Your task to perform on an android device: all mails in gmail Image 0: 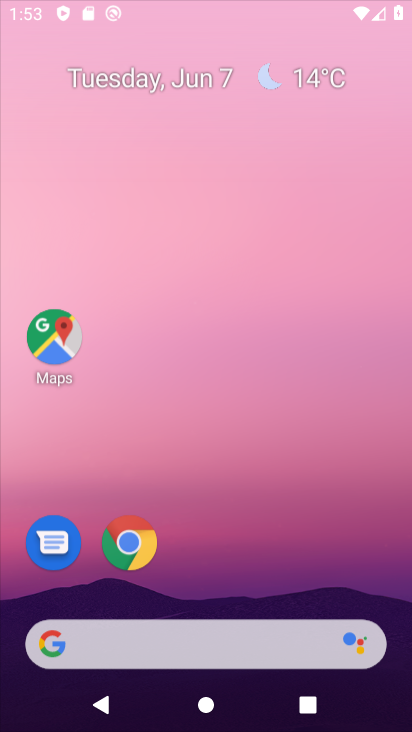
Step 0: click (194, 101)
Your task to perform on an android device: all mails in gmail Image 1: 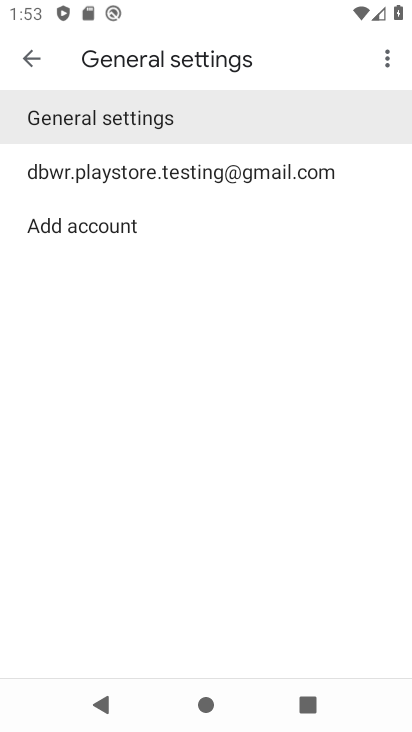
Step 1: click (171, 83)
Your task to perform on an android device: all mails in gmail Image 2: 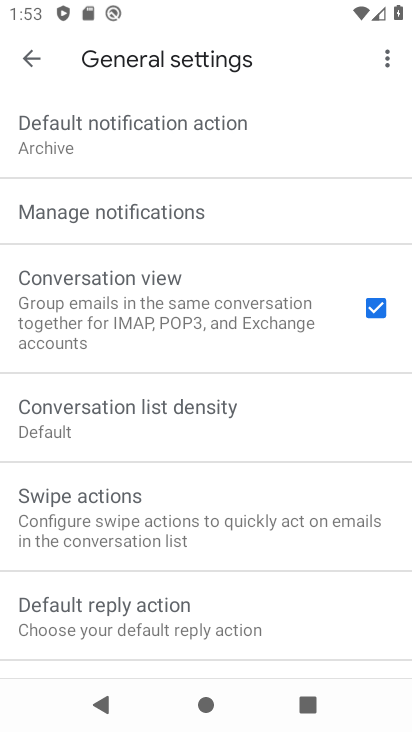
Step 2: press home button
Your task to perform on an android device: all mails in gmail Image 3: 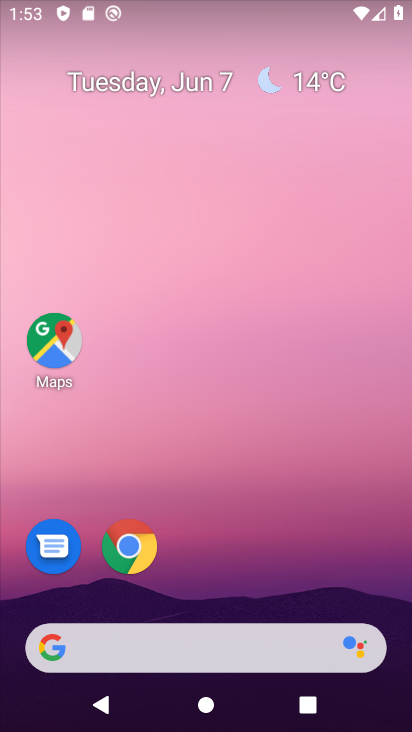
Step 3: drag from (203, 599) to (195, 139)
Your task to perform on an android device: all mails in gmail Image 4: 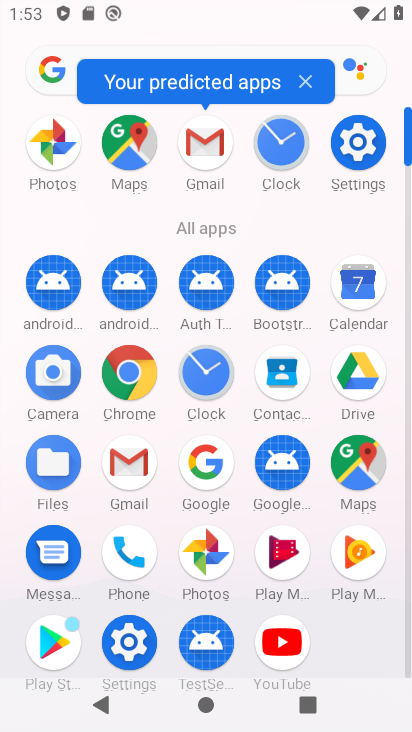
Step 4: click (181, 138)
Your task to perform on an android device: all mails in gmail Image 5: 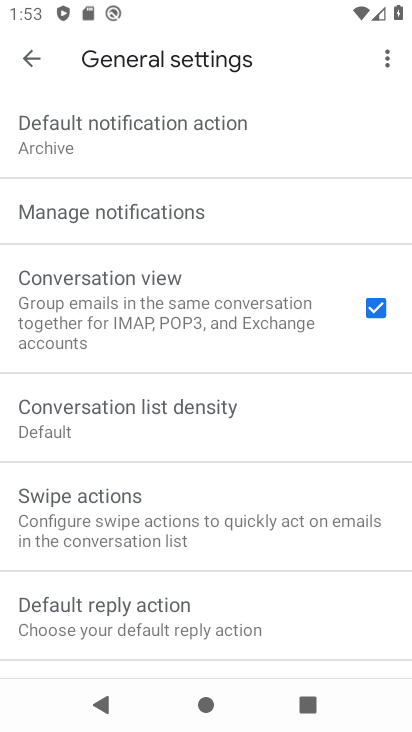
Step 5: click (28, 54)
Your task to perform on an android device: all mails in gmail Image 6: 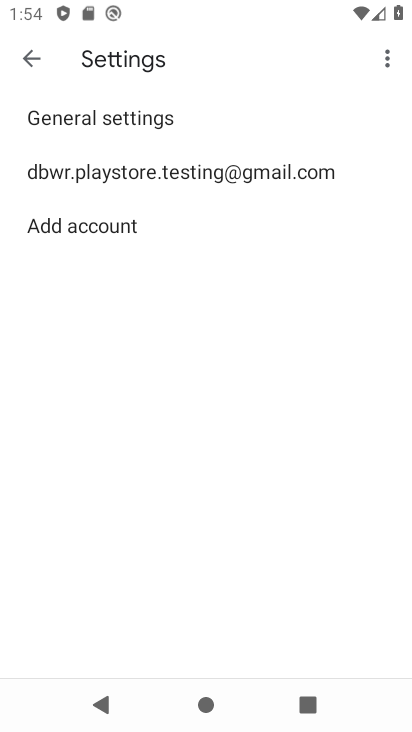
Step 6: click (28, 54)
Your task to perform on an android device: all mails in gmail Image 7: 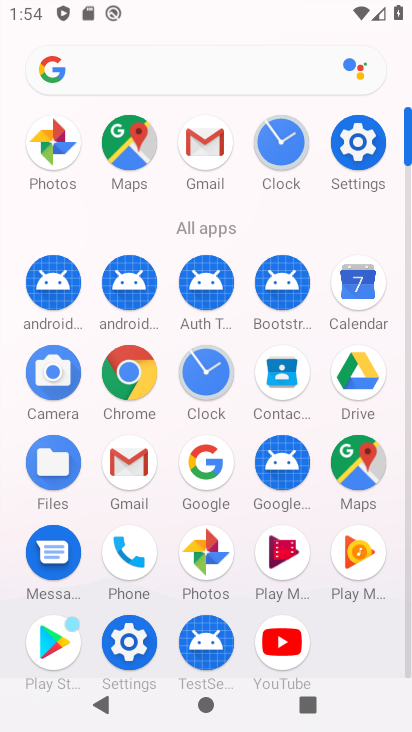
Step 7: click (178, 143)
Your task to perform on an android device: all mails in gmail Image 8: 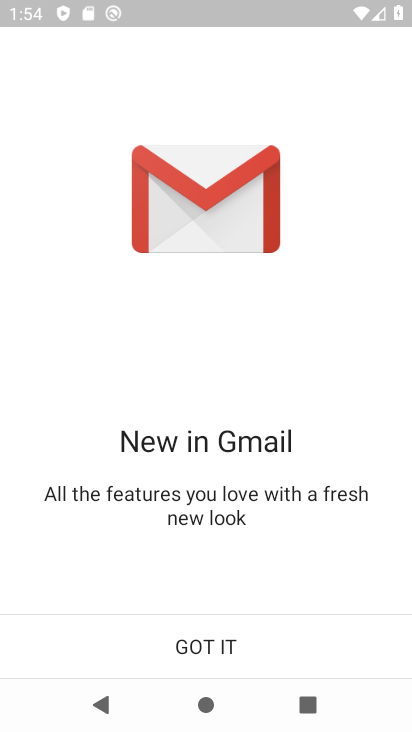
Step 8: click (153, 653)
Your task to perform on an android device: all mails in gmail Image 9: 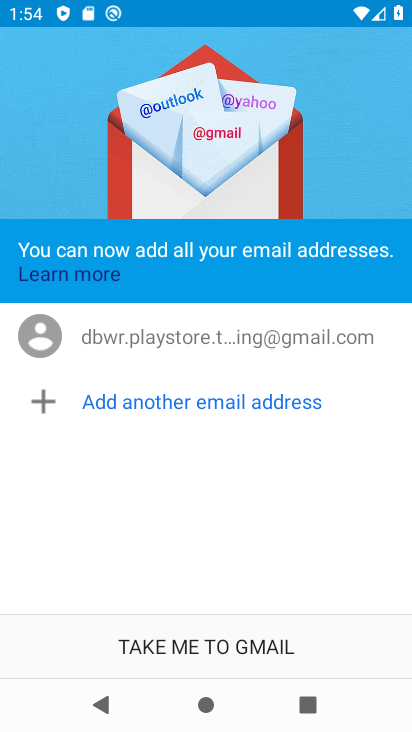
Step 9: click (153, 653)
Your task to perform on an android device: all mails in gmail Image 10: 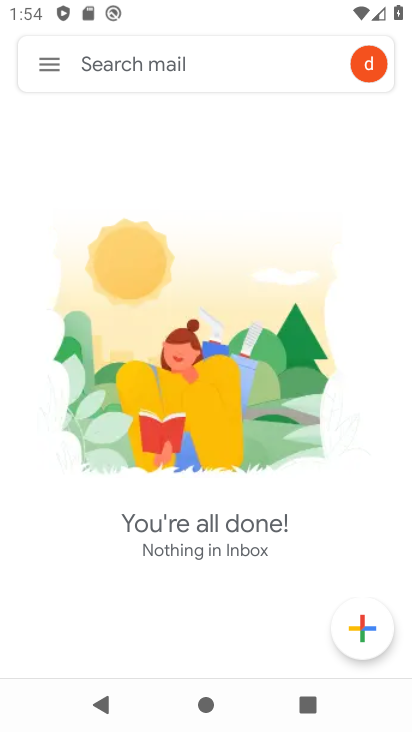
Step 10: click (49, 70)
Your task to perform on an android device: all mails in gmail Image 11: 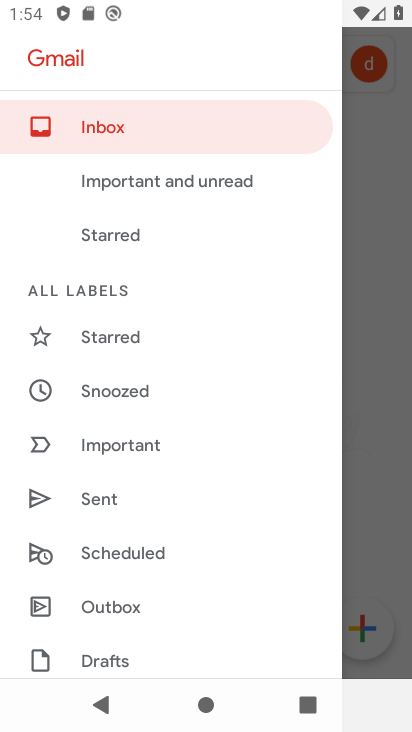
Step 11: drag from (177, 595) to (200, 283)
Your task to perform on an android device: all mails in gmail Image 12: 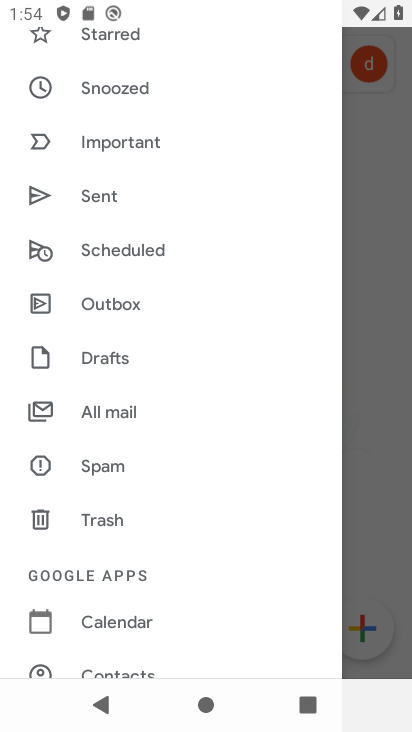
Step 12: click (85, 412)
Your task to perform on an android device: all mails in gmail Image 13: 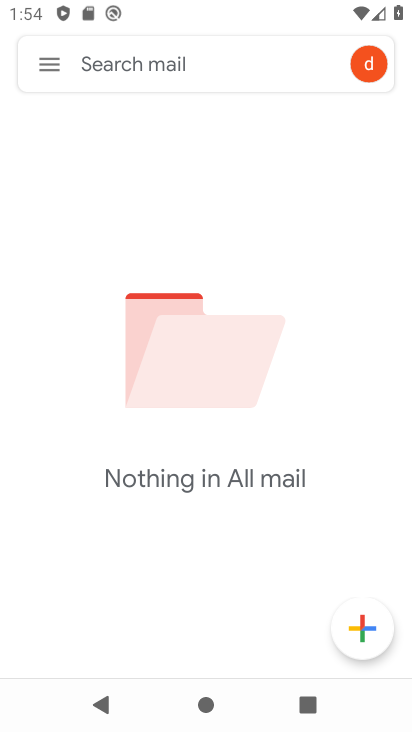
Step 13: task complete